Your task to perform on an android device: Open Google Maps Image 0: 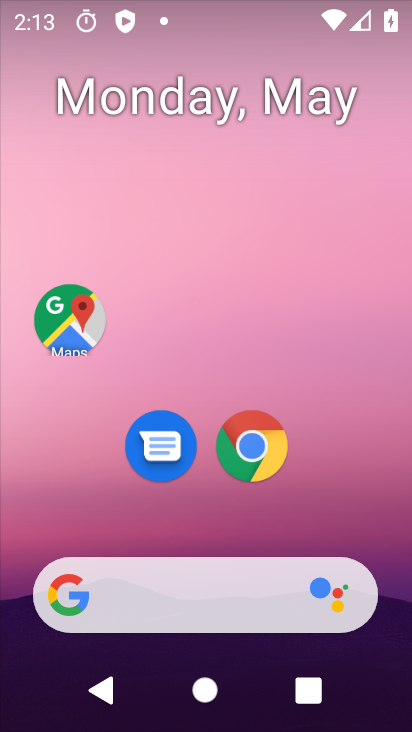
Step 0: click (39, 326)
Your task to perform on an android device: Open Google Maps Image 1: 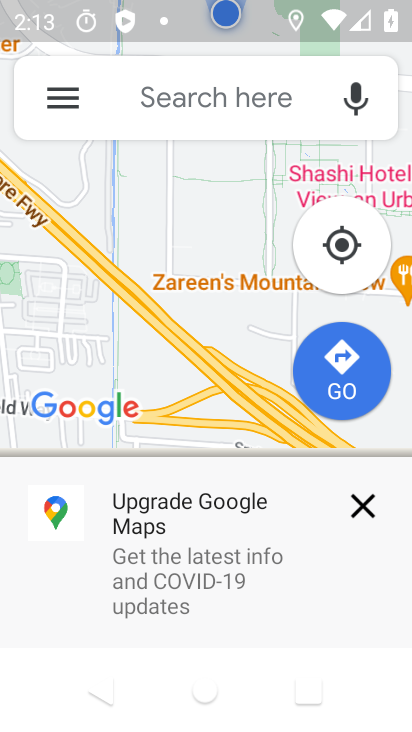
Step 1: task complete